Your task to perform on an android device: Open wifi settings Image 0: 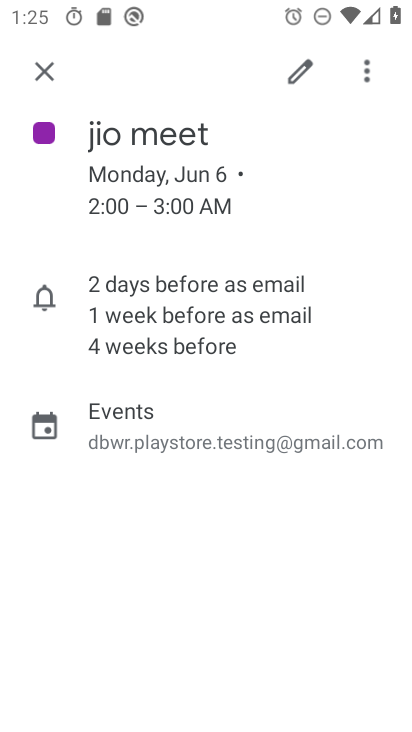
Step 0: press home button
Your task to perform on an android device: Open wifi settings Image 1: 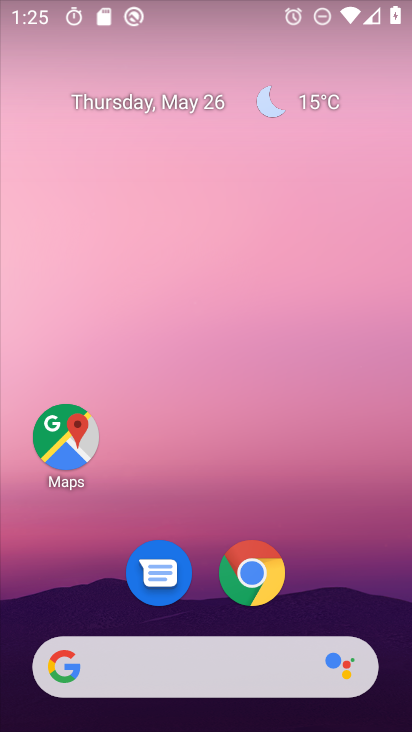
Step 1: drag from (355, 625) to (382, 6)
Your task to perform on an android device: Open wifi settings Image 2: 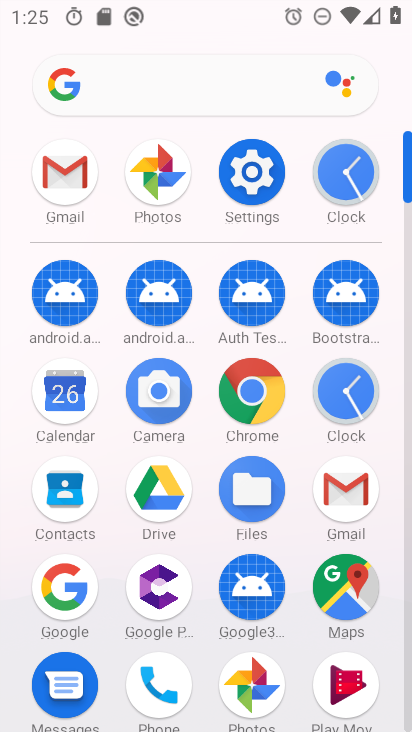
Step 2: click (251, 180)
Your task to perform on an android device: Open wifi settings Image 3: 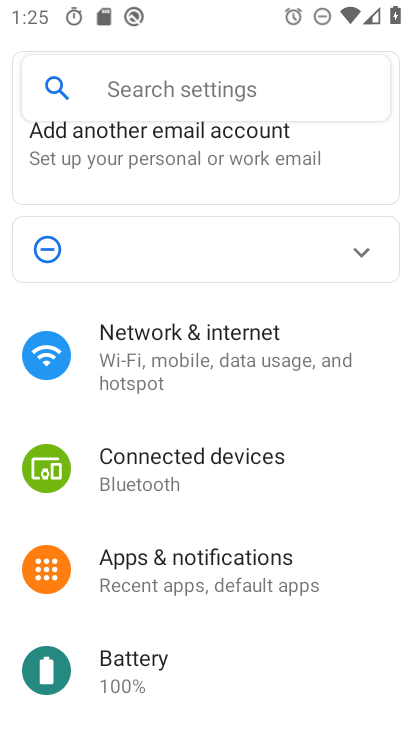
Step 3: click (182, 364)
Your task to perform on an android device: Open wifi settings Image 4: 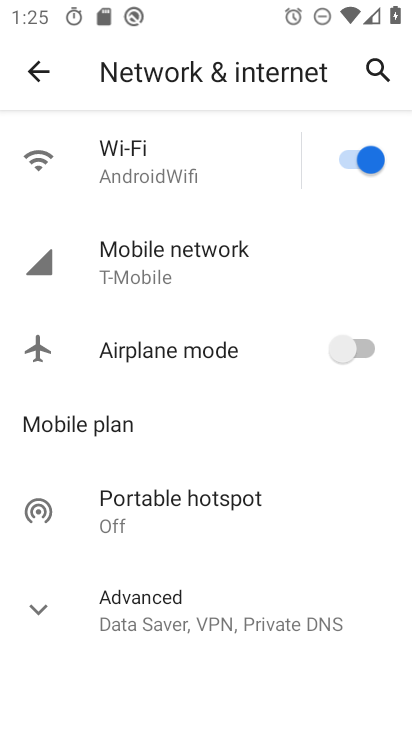
Step 4: click (93, 160)
Your task to perform on an android device: Open wifi settings Image 5: 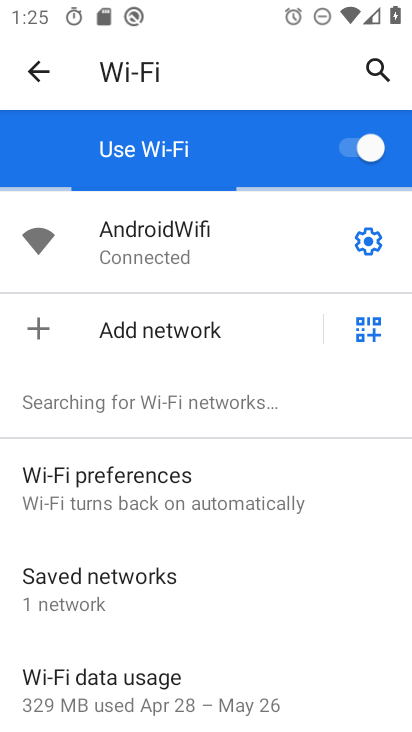
Step 5: task complete